Your task to perform on an android device: show emergency info Image 0: 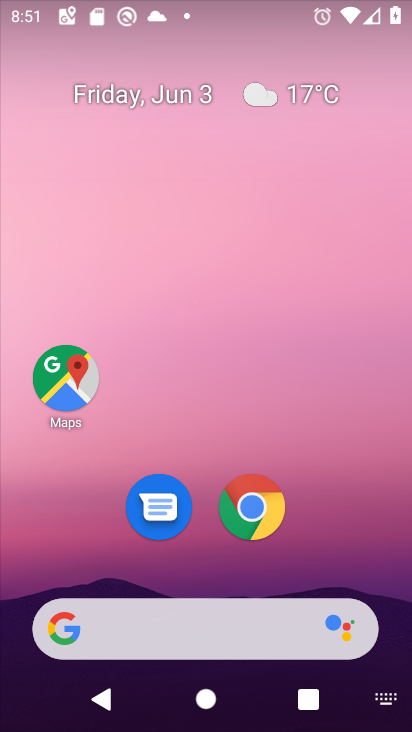
Step 0: drag from (372, 491) to (191, 112)
Your task to perform on an android device: show emergency info Image 1: 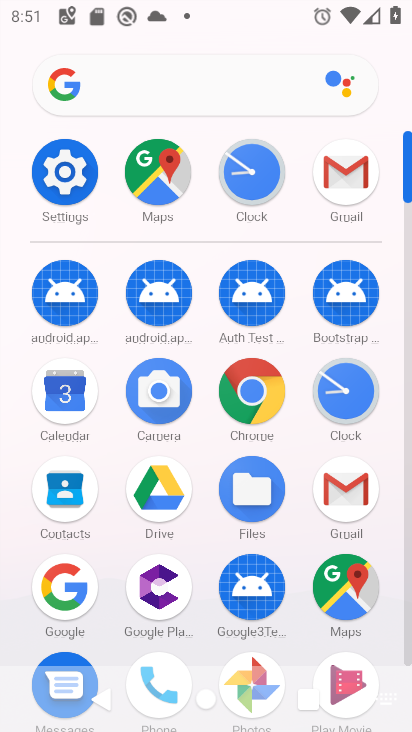
Step 1: click (68, 184)
Your task to perform on an android device: show emergency info Image 2: 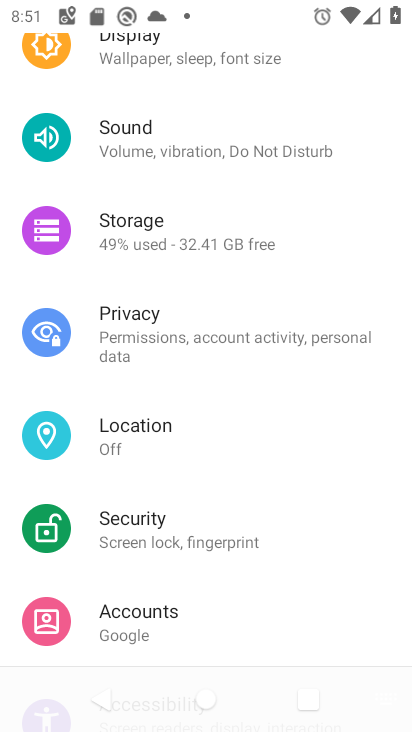
Step 2: drag from (262, 594) to (263, 45)
Your task to perform on an android device: show emergency info Image 3: 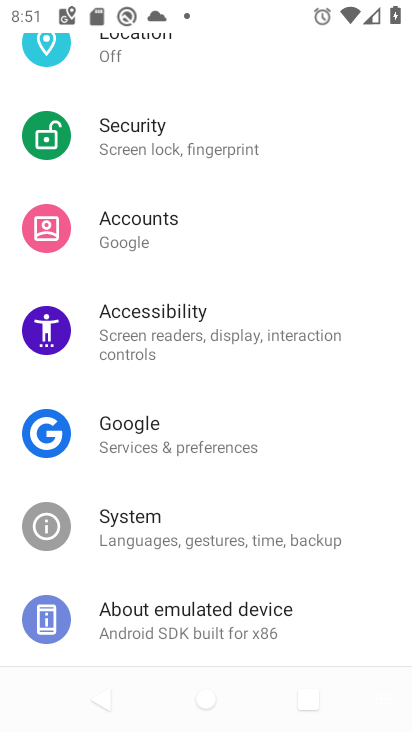
Step 3: click (264, 607)
Your task to perform on an android device: show emergency info Image 4: 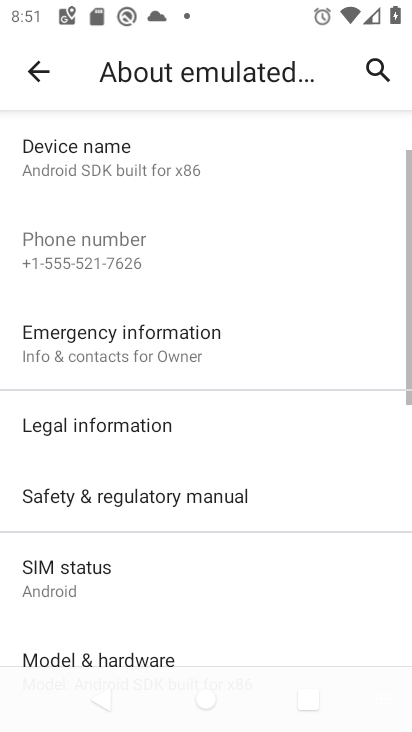
Step 4: drag from (231, 508) to (179, 66)
Your task to perform on an android device: show emergency info Image 5: 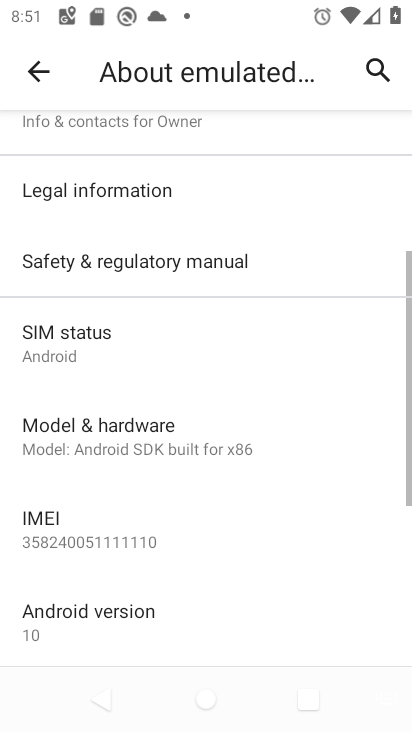
Step 5: drag from (190, 195) to (214, 723)
Your task to perform on an android device: show emergency info Image 6: 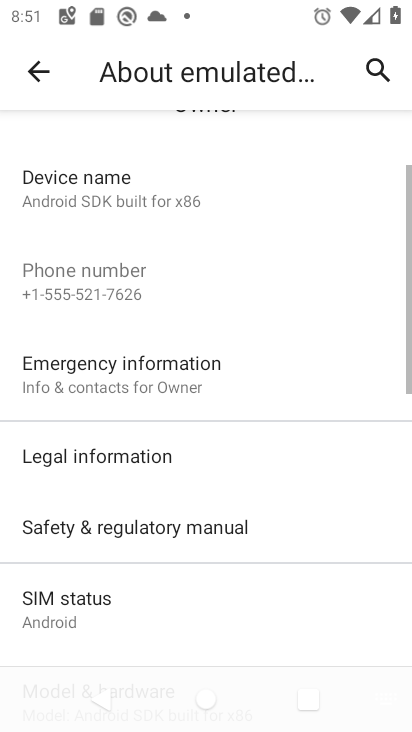
Step 6: click (178, 372)
Your task to perform on an android device: show emergency info Image 7: 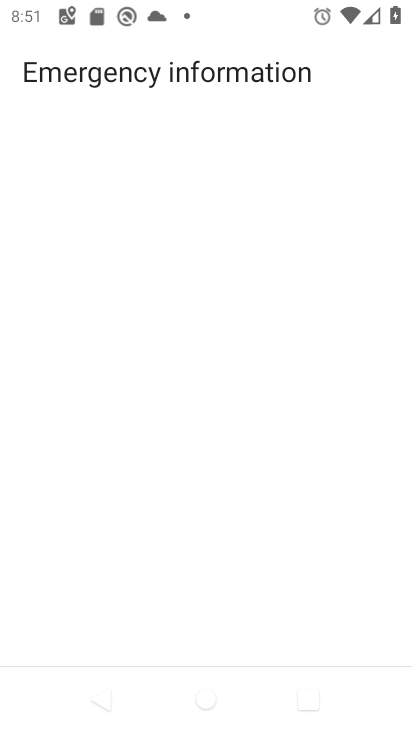
Step 7: task complete